Your task to perform on an android device: show emergency info Image 0: 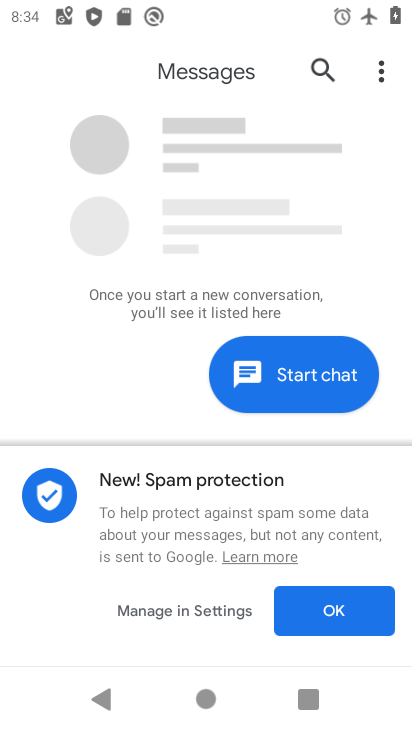
Step 0: press home button
Your task to perform on an android device: show emergency info Image 1: 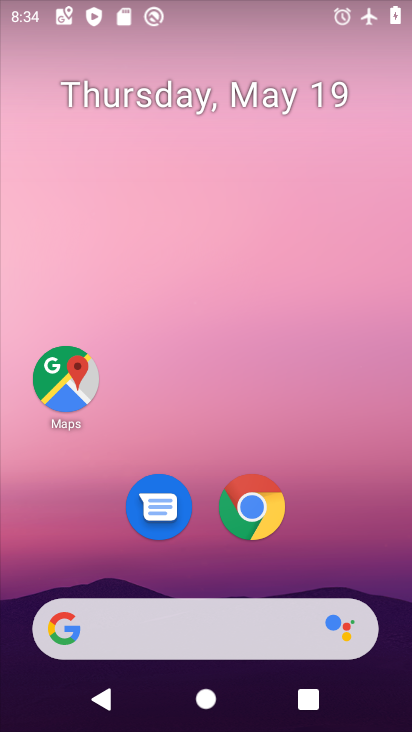
Step 1: drag from (179, 722) to (155, 96)
Your task to perform on an android device: show emergency info Image 2: 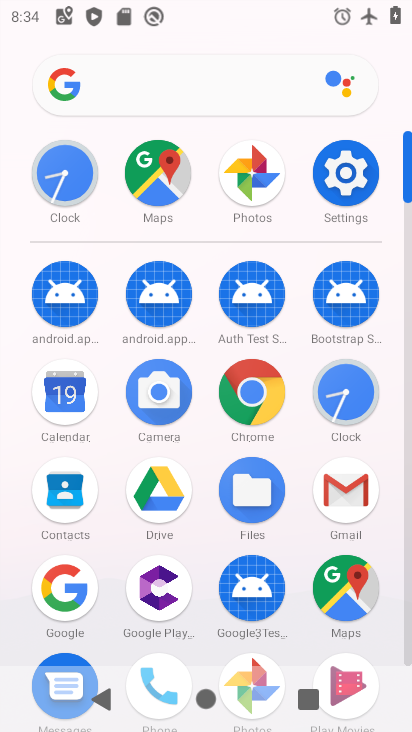
Step 2: click (338, 172)
Your task to perform on an android device: show emergency info Image 3: 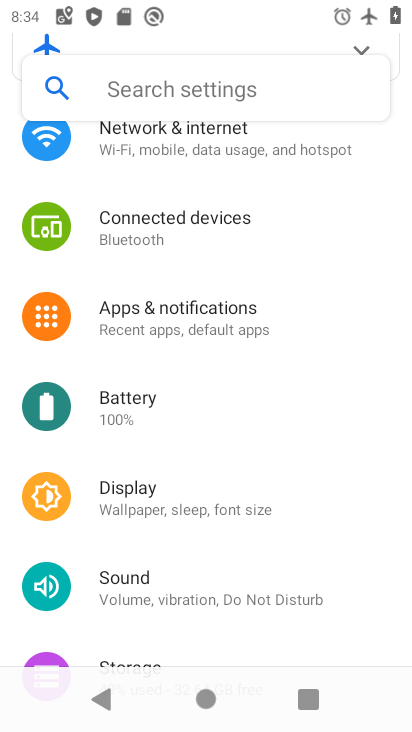
Step 3: drag from (119, 595) to (119, 189)
Your task to perform on an android device: show emergency info Image 4: 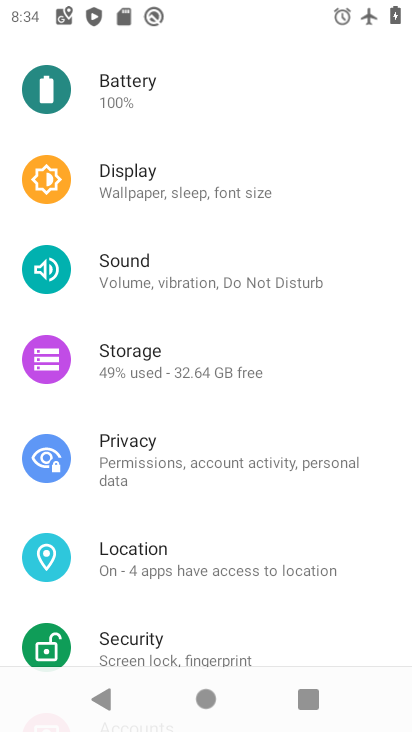
Step 4: drag from (147, 594) to (139, 188)
Your task to perform on an android device: show emergency info Image 5: 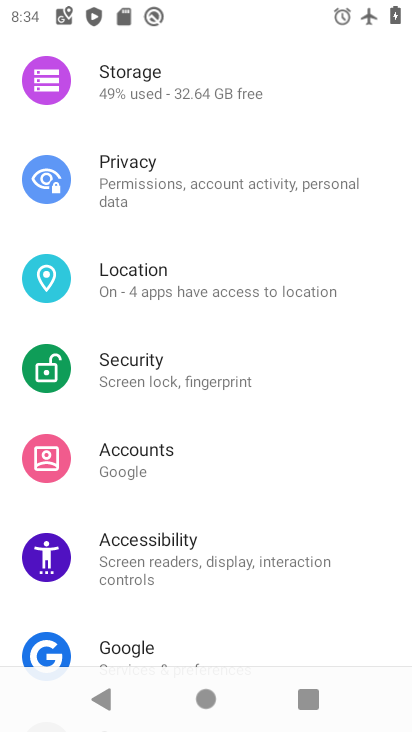
Step 5: drag from (161, 616) to (172, 264)
Your task to perform on an android device: show emergency info Image 6: 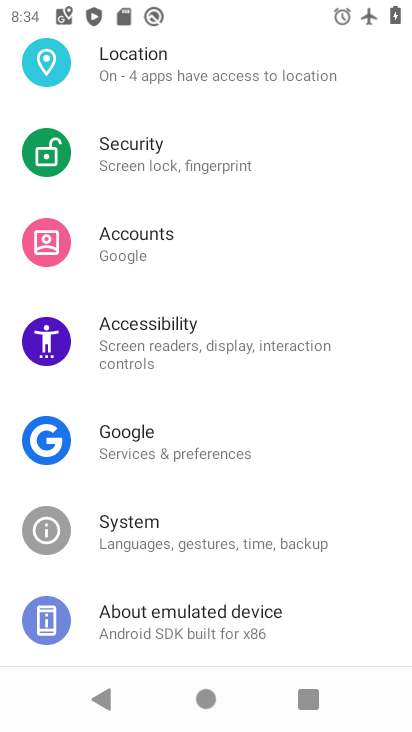
Step 6: drag from (195, 604) to (206, 232)
Your task to perform on an android device: show emergency info Image 7: 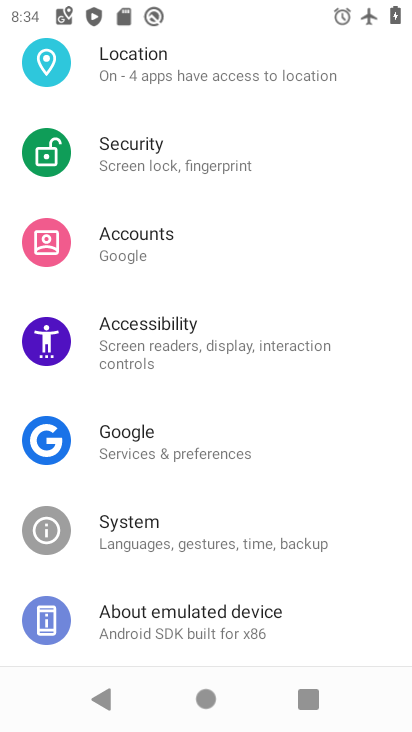
Step 7: click (218, 621)
Your task to perform on an android device: show emergency info Image 8: 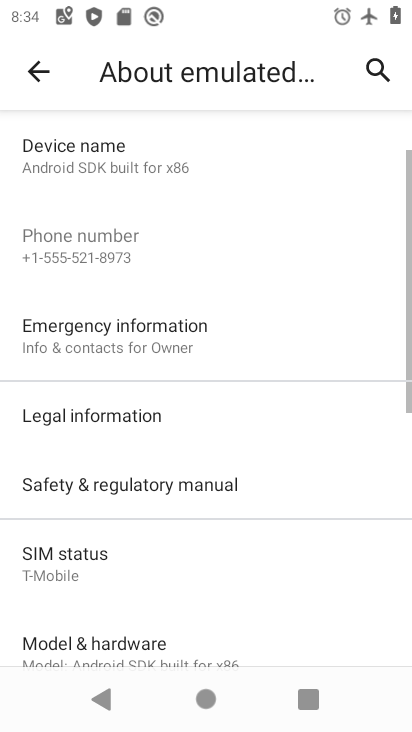
Step 8: click (118, 328)
Your task to perform on an android device: show emergency info Image 9: 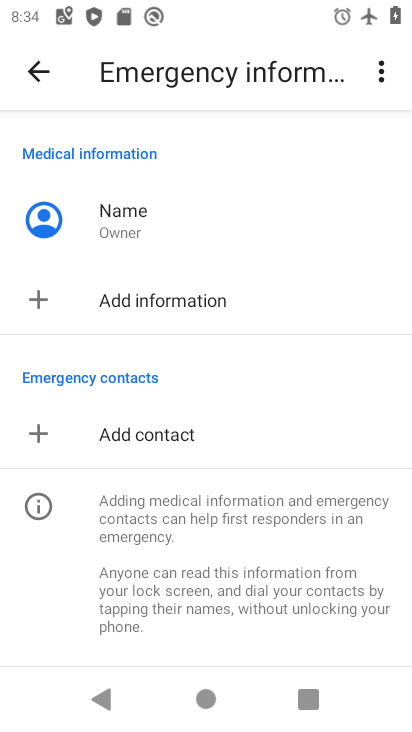
Step 9: task complete